Your task to perform on an android device: Go to Google Image 0: 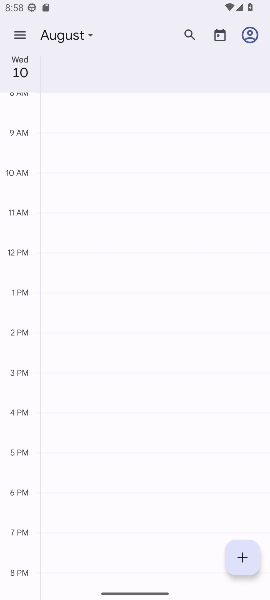
Step 0: press home button
Your task to perform on an android device: Go to Google Image 1: 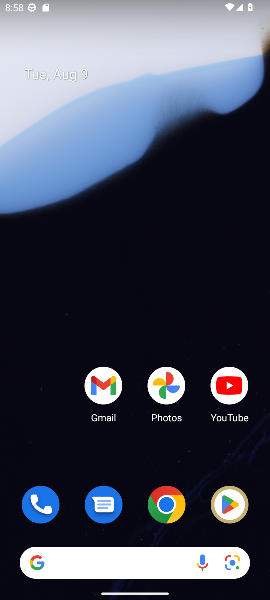
Step 1: drag from (133, 462) to (70, 76)
Your task to perform on an android device: Go to Google Image 2: 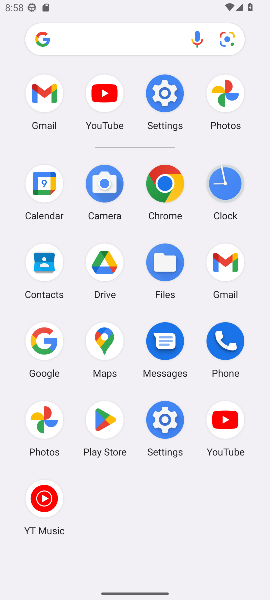
Step 2: click (49, 342)
Your task to perform on an android device: Go to Google Image 3: 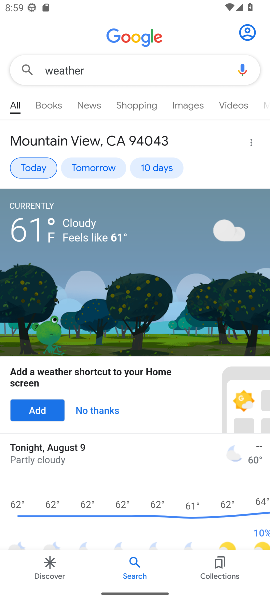
Step 3: task complete